Your task to perform on an android device: open wifi settings Image 0: 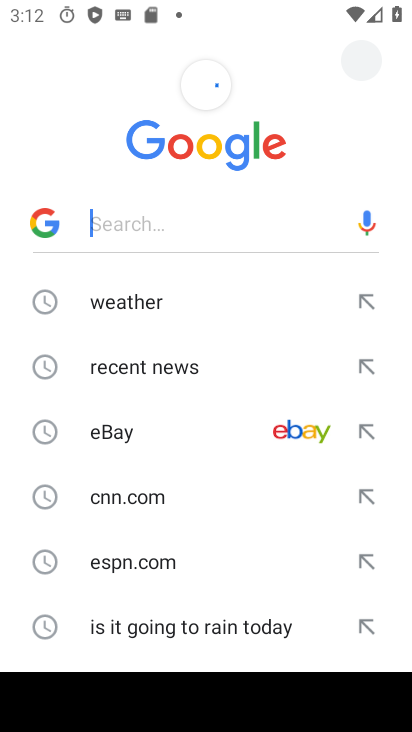
Step 0: press home button
Your task to perform on an android device: open wifi settings Image 1: 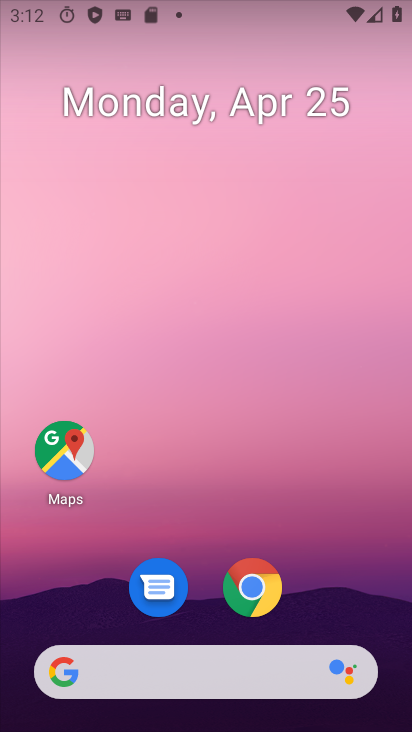
Step 1: drag from (317, 588) to (261, 81)
Your task to perform on an android device: open wifi settings Image 2: 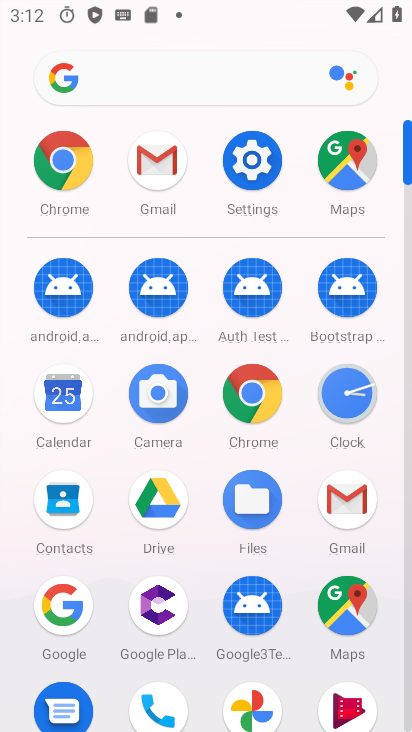
Step 2: click (239, 177)
Your task to perform on an android device: open wifi settings Image 3: 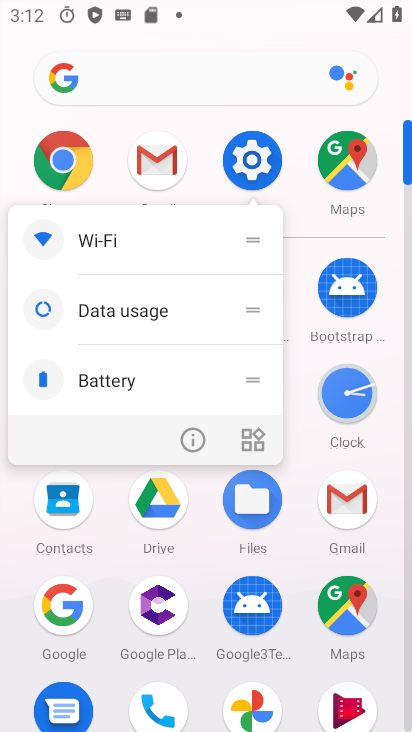
Step 3: click (244, 171)
Your task to perform on an android device: open wifi settings Image 4: 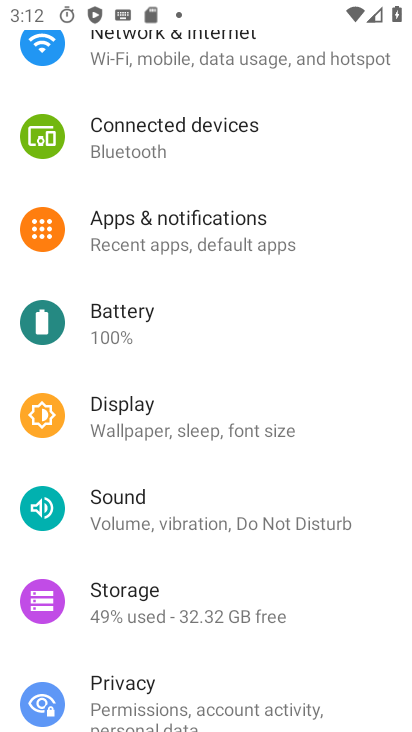
Step 4: click (165, 61)
Your task to perform on an android device: open wifi settings Image 5: 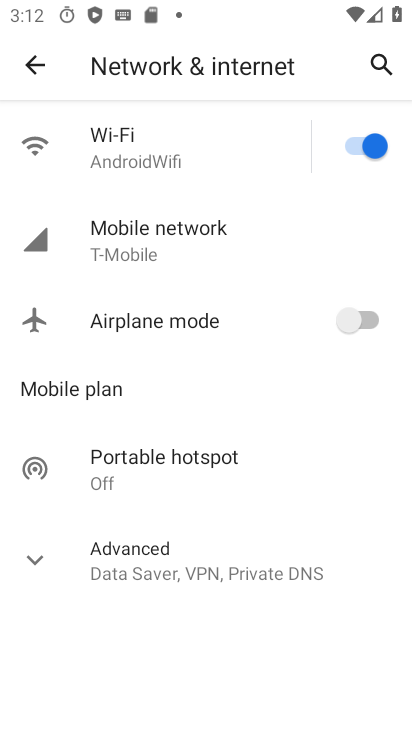
Step 5: click (131, 143)
Your task to perform on an android device: open wifi settings Image 6: 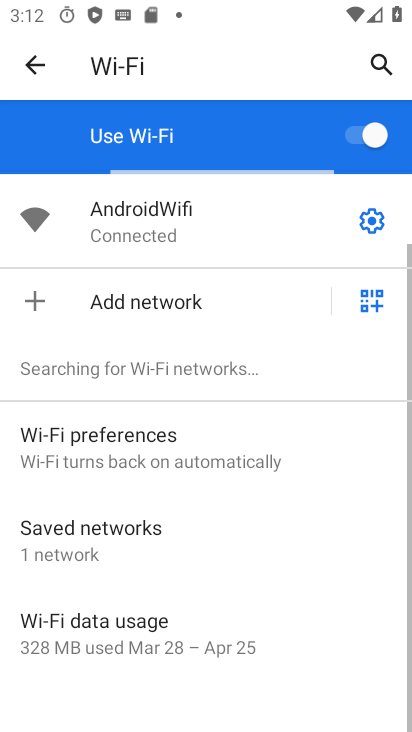
Step 6: click (372, 212)
Your task to perform on an android device: open wifi settings Image 7: 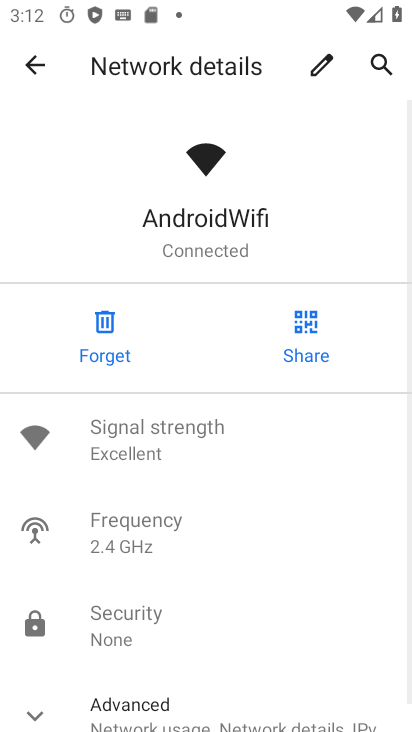
Step 7: task complete